Your task to perform on an android device: Open CNN.com Image 0: 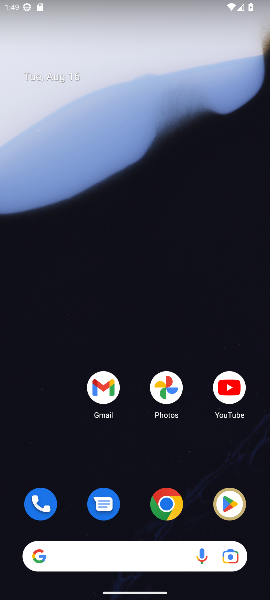
Step 0: click (166, 502)
Your task to perform on an android device: Open CNN.com Image 1: 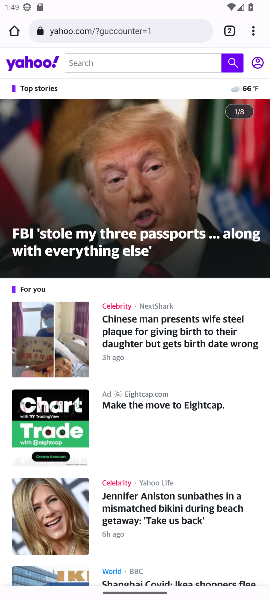
Step 1: click (252, 26)
Your task to perform on an android device: Open CNN.com Image 2: 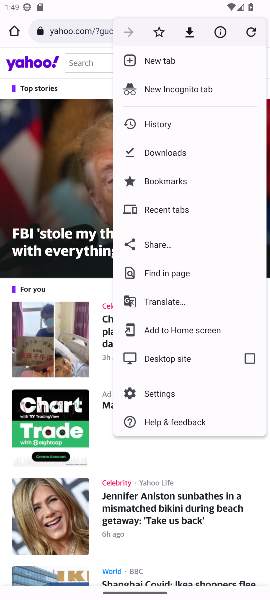
Step 2: click (160, 59)
Your task to perform on an android device: Open CNN.com Image 3: 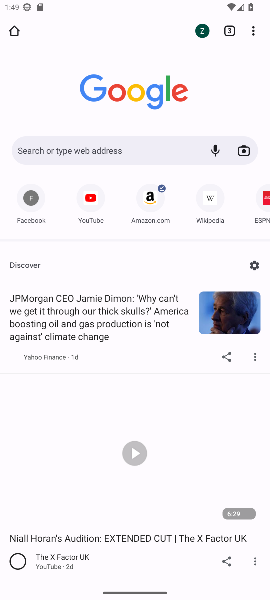
Step 3: click (86, 141)
Your task to perform on an android device: Open CNN.com Image 4: 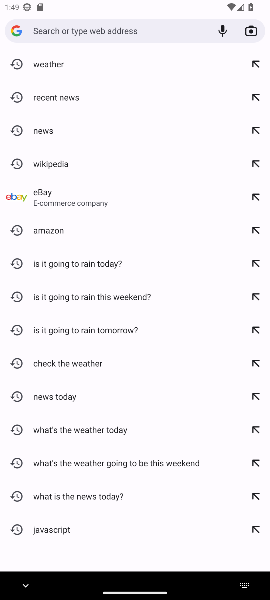
Step 4: type "cnn.com"
Your task to perform on an android device: Open CNN.com Image 5: 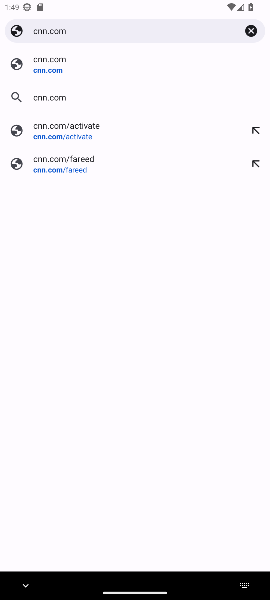
Step 5: click (49, 64)
Your task to perform on an android device: Open CNN.com Image 6: 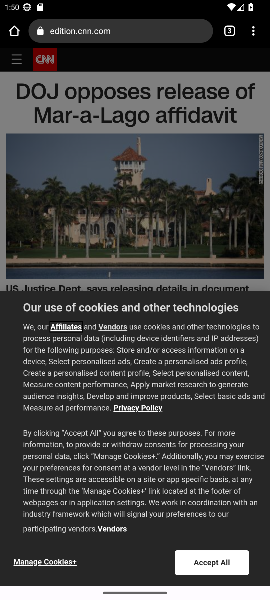
Step 6: click (207, 561)
Your task to perform on an android device: Open CNN.com Image 7: 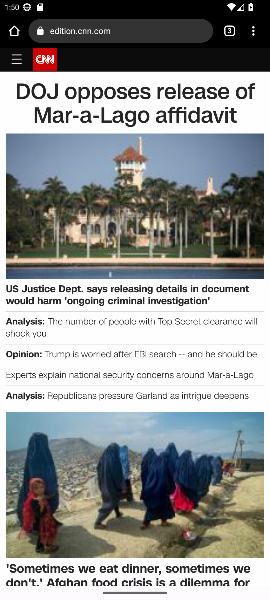
Step 7: task complete